Your task to perform on an android device: stop showing notifications on the lock screen Image 0: 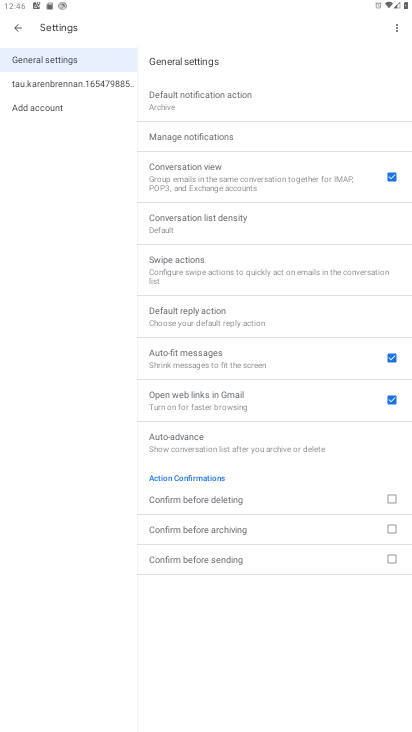
Step 0: press home button
Your task to perform on an android device: stop showing notifications on the lock screen Image 1: 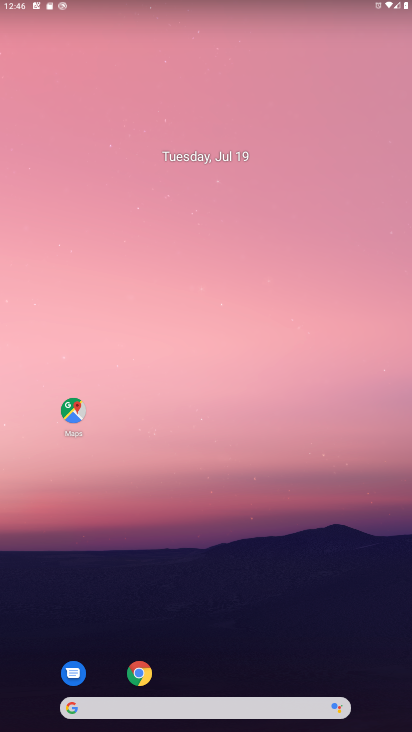
Step 1: drag from (182, 674) to (138, 241)
Your task to perform on an android device: stop showing notifications on the lock screen Image 2: 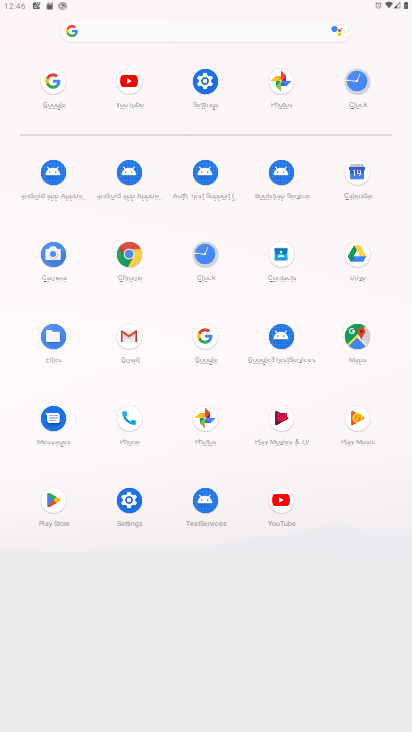
Step 2: click (195, 100)
Your task to perform on an android device: stop showing notifications on the lock screen Image 3: 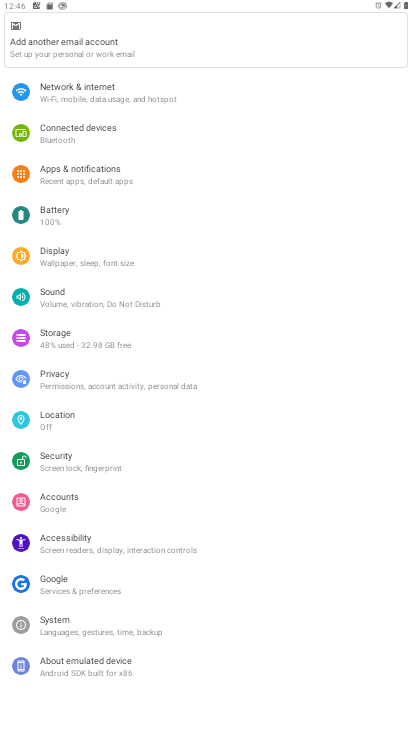
Step 3: click (145, 171)
Your task to perform on an android device: stop showing notifications on the lock screen Image 4: 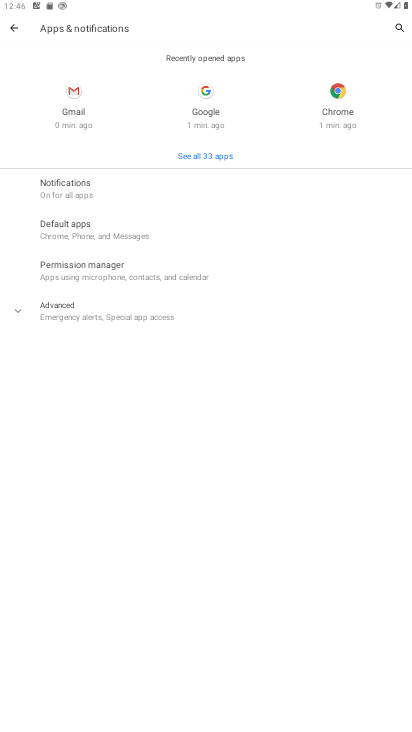
Step 4: click (131, 184)
Your task to perform on an android device: stop showing notifications on the lock screen Image 5: 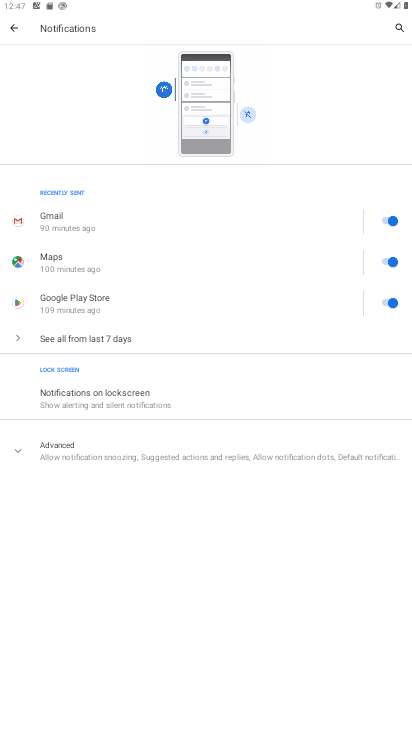
Step 5: click (138, 395)
Your task to perform on an android device: stop showing notifications on the lock screen Image 6: 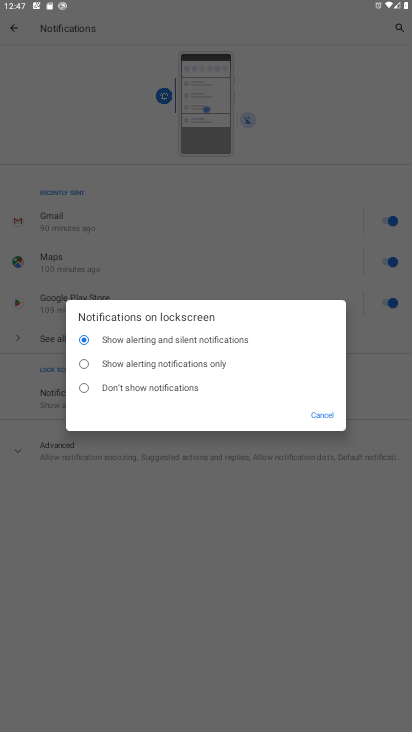
Step 6: click (164, 398)
Your task to perform on an android device: stop showing notifications on the lock screen Image 7: 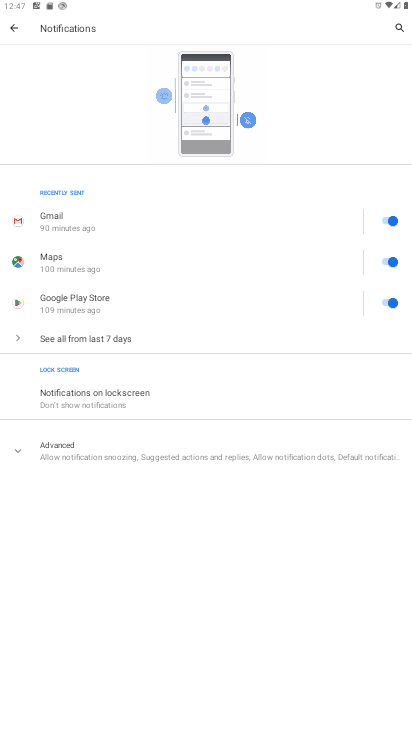
Step 7: task complete